Your task to perform on an android device: delete location history Image 0: 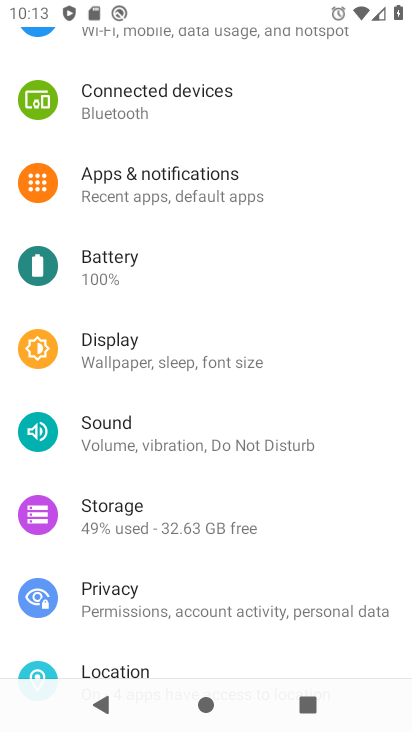
Step 0: press home button
Your task to perform on an android device: delete location history Image 1: 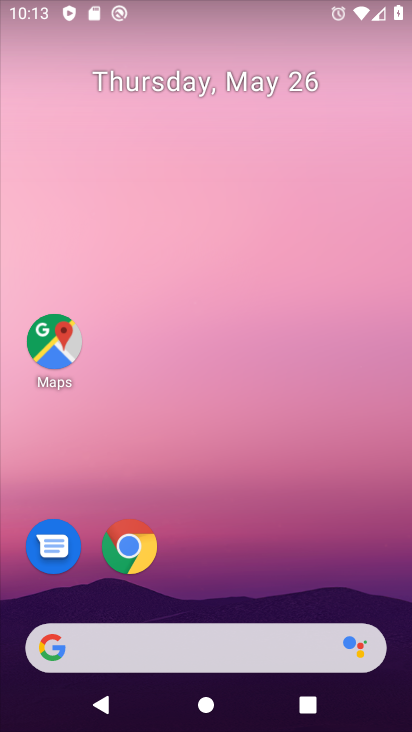
Step 1: click (51, 345)
Your task to perform on an android device: delete location history Image 2: 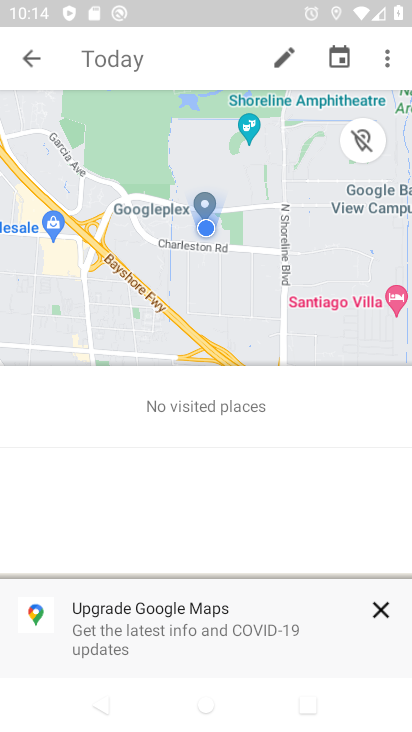
Step 2: click (32, 58)
Your task to perform on an android device: delete location history Image 3: 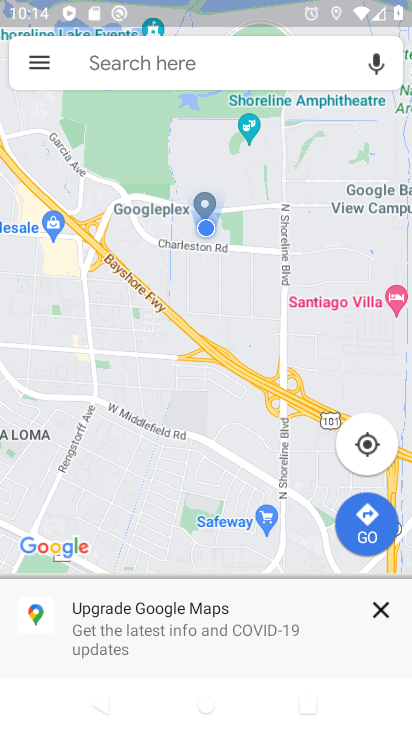
Step 3: click (42, 64)
Your task to perform on an android device: delete location history Image 4: 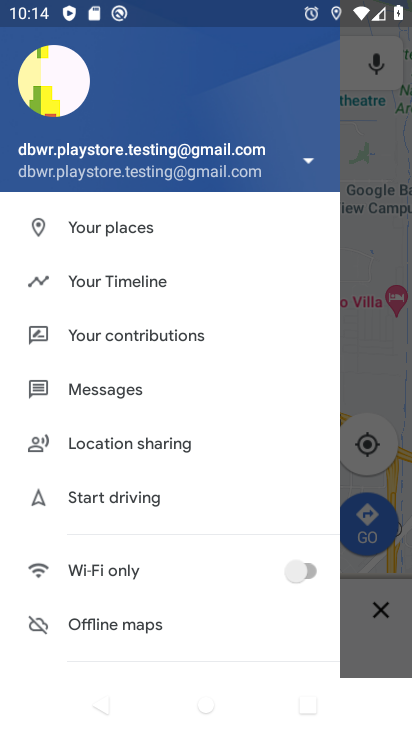
Step 4: drag from (93, 537) to (156, 407)
Your task to perform on an android device: delete location history Image 5: 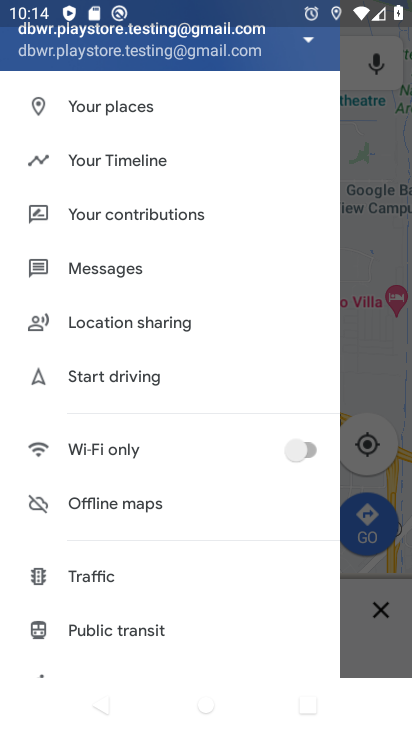
Step 5: drag from (108, 528) to (168, 425)
Your task to perform on an android device: delete location history Image 6: 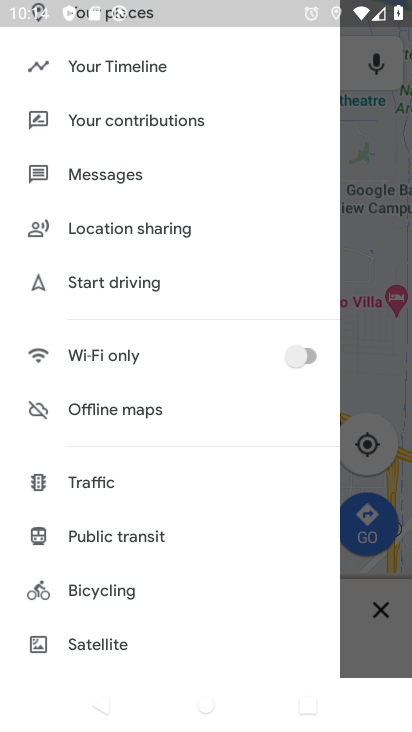
Step 6: drag from (112, 505) to (186, 359)
Your task to perform on an android device: delete location history Image 7: 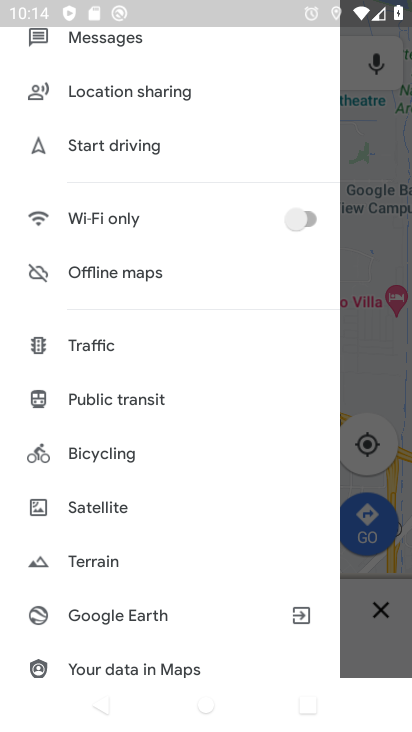
Step 7: drag from (98, 589) to (150, 432)
Your task to perform on an android device: delete location history Image 8: 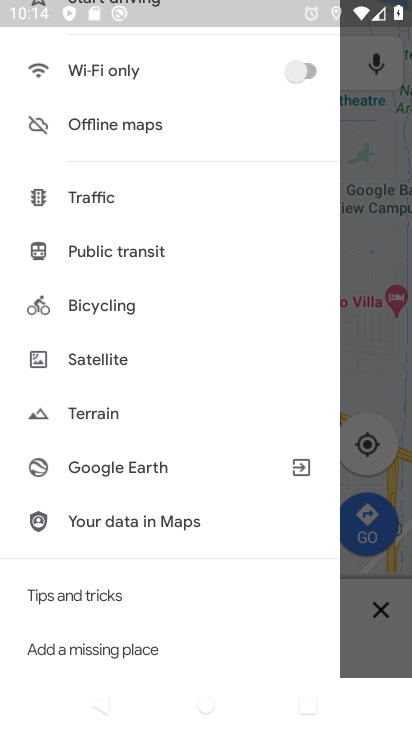
Step 8: drag from (81, 614) to (156, 495)
Your task to perform on an android device: delete location history Image 9: 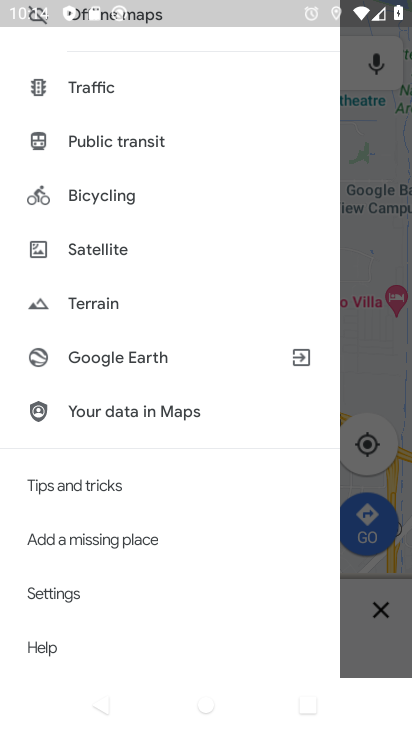
Step 9: click (63, 595)
Your task to perform on an android device: delete location history Image 10: 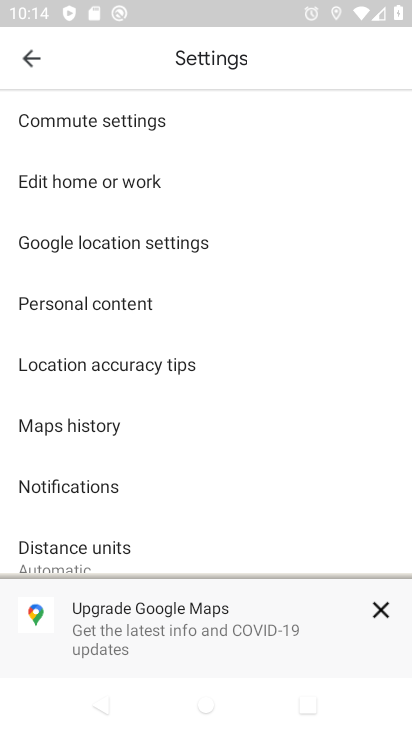
Step 10: click (118, 305)
Your task to perform on an android device: delete location history Image 11: 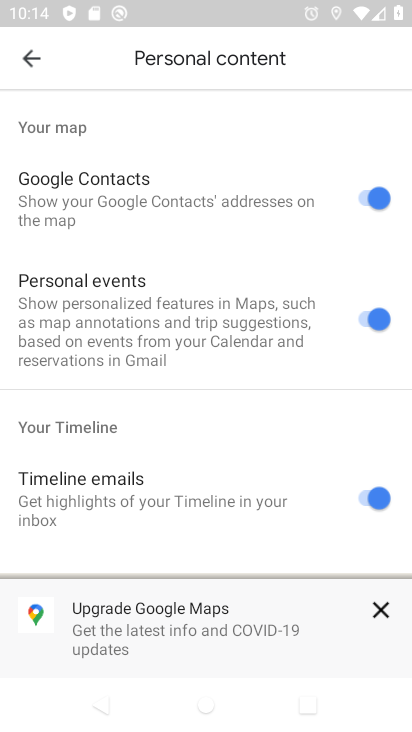
Step 11: drag from (176, 437) to (256, 293)
Your task to perform on an android device: delete location history Image 12: 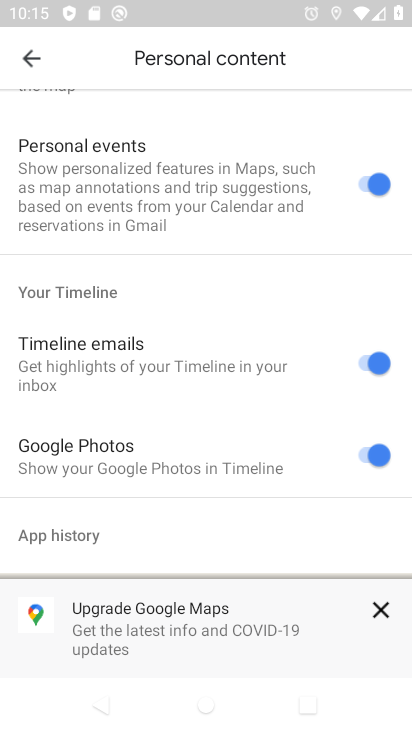
Step 12: drag from (131, 408) to (227, 282)
Your task to perform on an android device: delete location history Image 13: 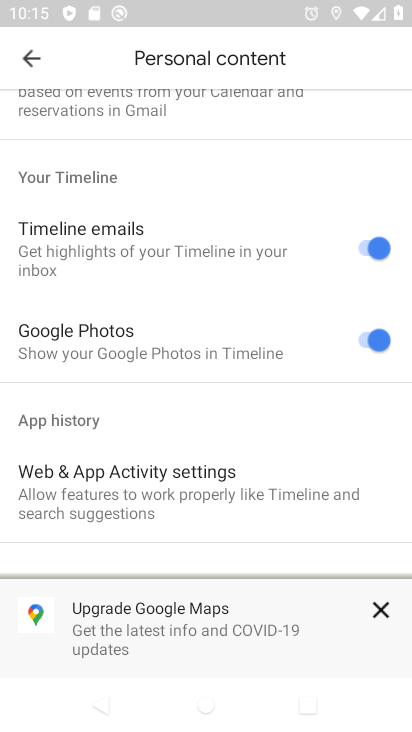
Step 13: drag from (131, 436) to (210, 291)
Your task to perform on an android device: delete location history Image 14: 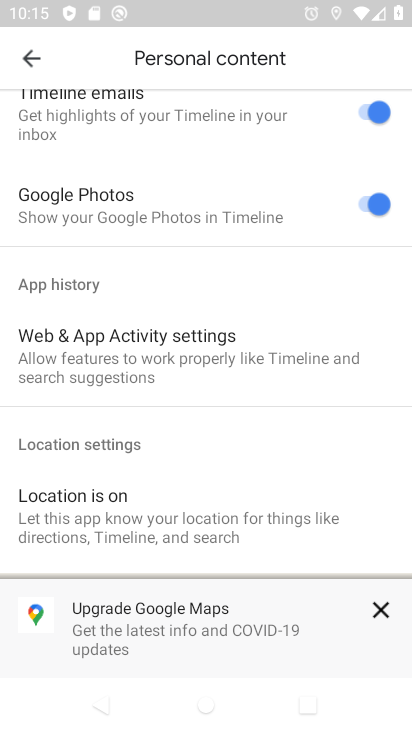
Step 14: drag from (102, 467) to (234, 315)
Your task to perform on an android device: delete location history Image 15: 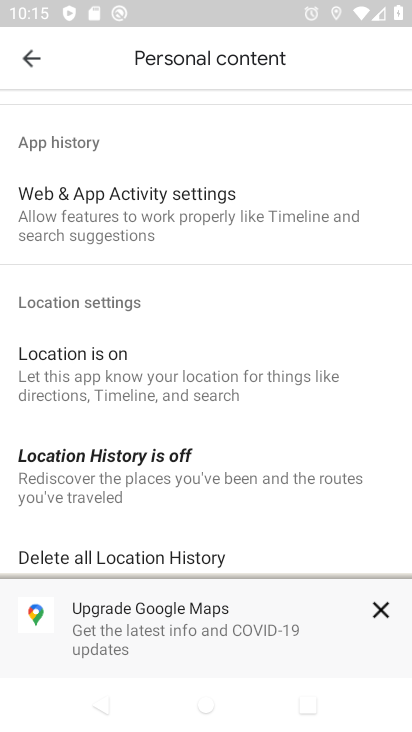
Step 15: drag from (105, 440) to (260, 269)
Your task to perform on an android device: delete location history Image 16: 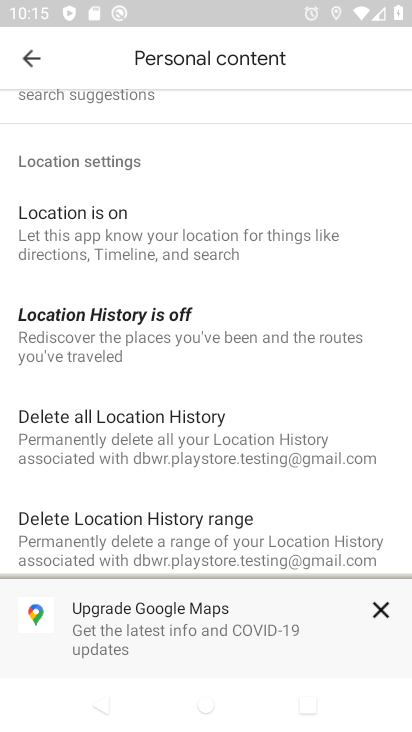
Step 16: click (161, 417)
Your task to perform on an android device: delete location history Image 17: 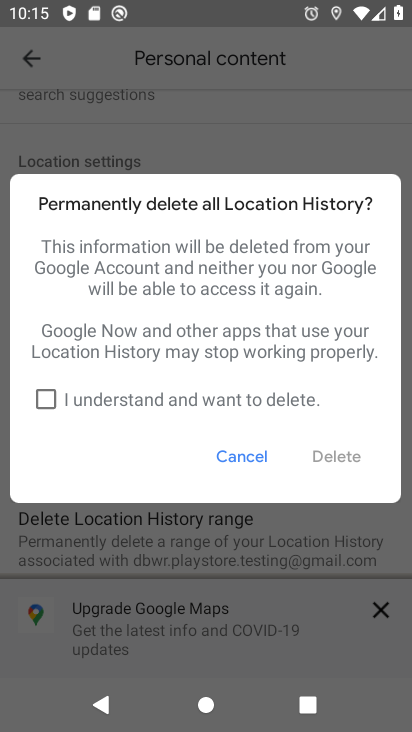
Step 17: click (43, 404)
Your task to perform on an android device: delete location history Image 18: 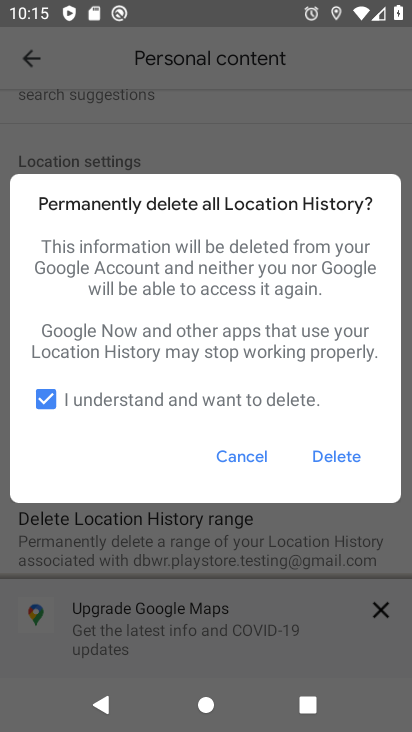
Step 18: click (340, 452)
Your task to perform on an android device: delete location history Image 19: 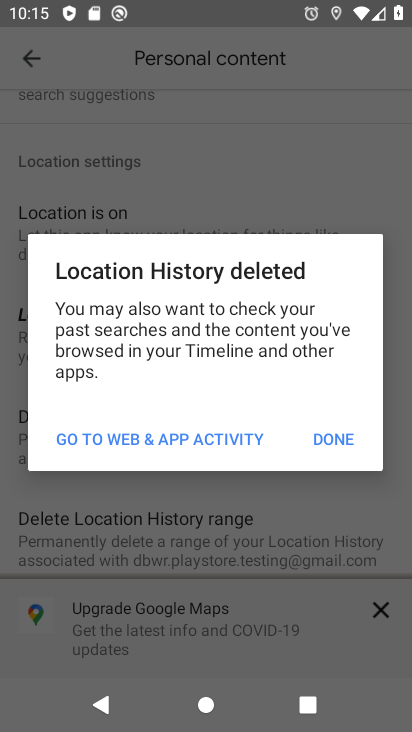
Step 19: click (333, 432)
Your task to perform on an android device: delete location history Image 20: 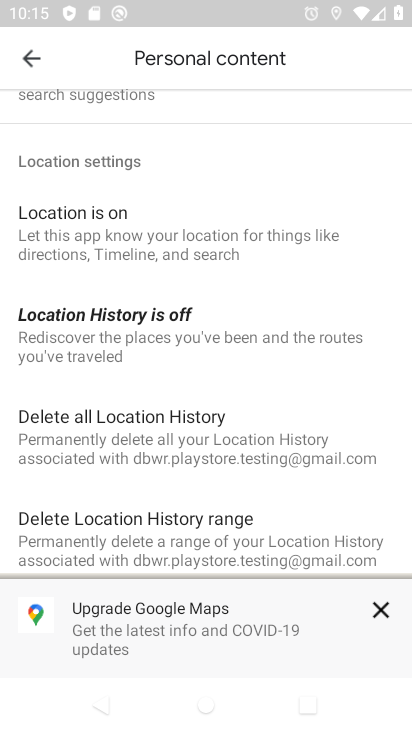
Step 20: task complete